Your task to perform on an android device: check data usage Image 0: 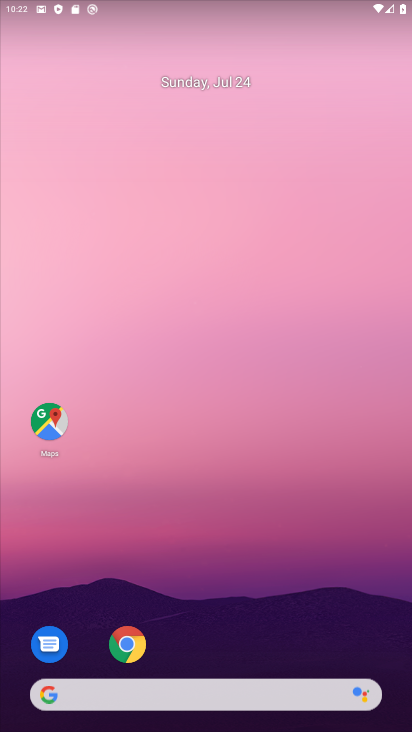
Step 0: drag from (264, 651) to (230, 43)
Your task to perform on an android device: check data usage Image 1: 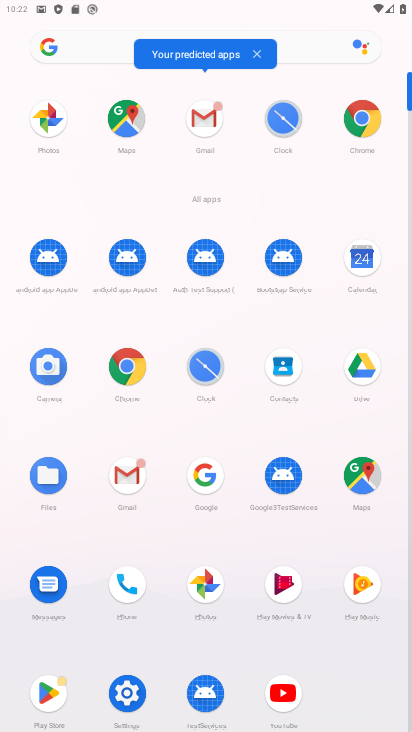
Step 1: click (123, 710)
Your task to perform on an android device: check data usage Image 2: 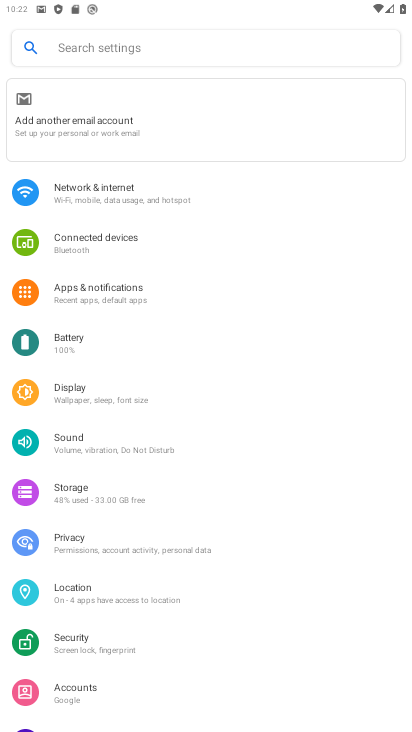
Step 2: click (157, 200)
Your task to perform on an android device: check data usage Image 3: 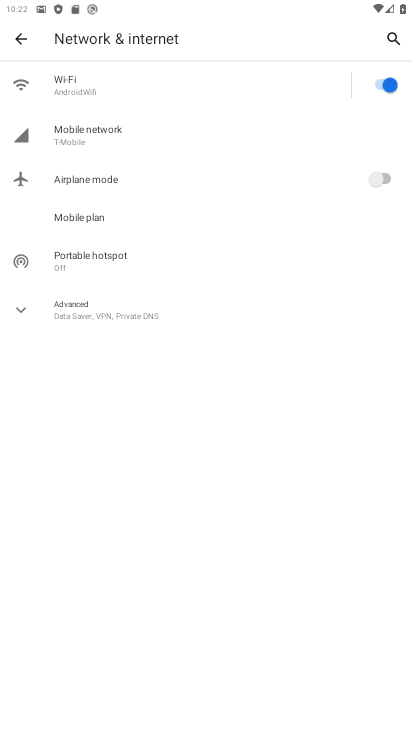
Step 3: click (200, 82)
Your task to perform on an android device: check data usage Image 4: 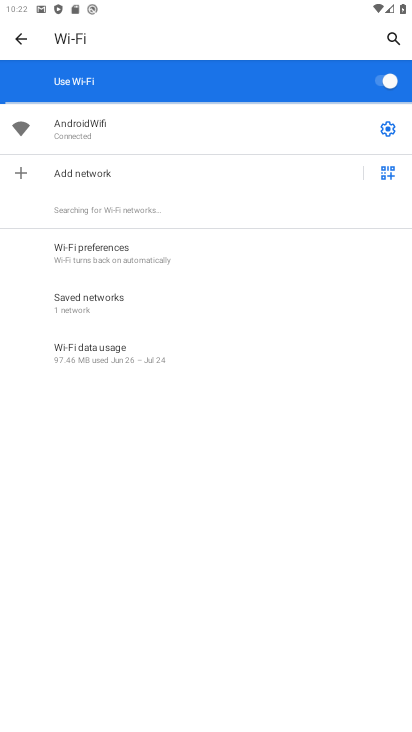
Step 4: click (177, 374)
Your task to perform on an android device: check data usage Image 5: 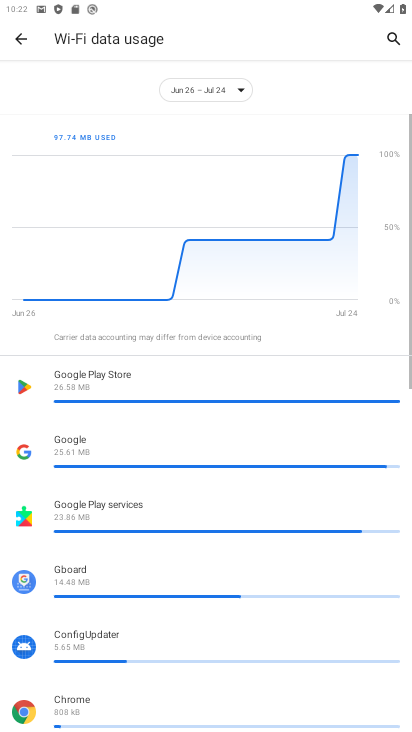
Step 5: task complete